Your task to perform on an android device: open a new tab in the chrome app Image 0: 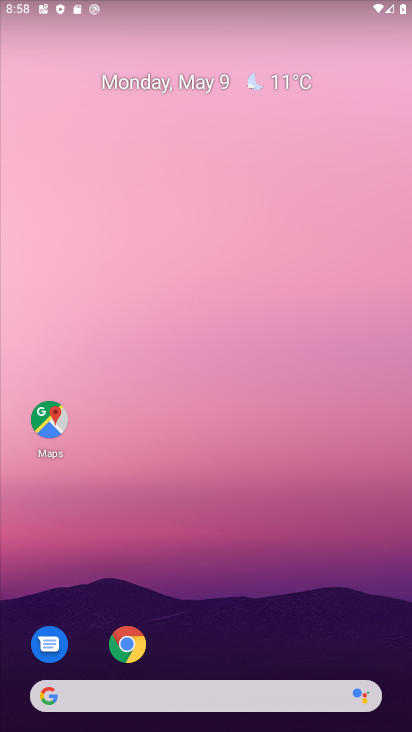
Step 0: click (129, 631)
Your task to perform on an android device: open a new tab in the chrome app Image 1: 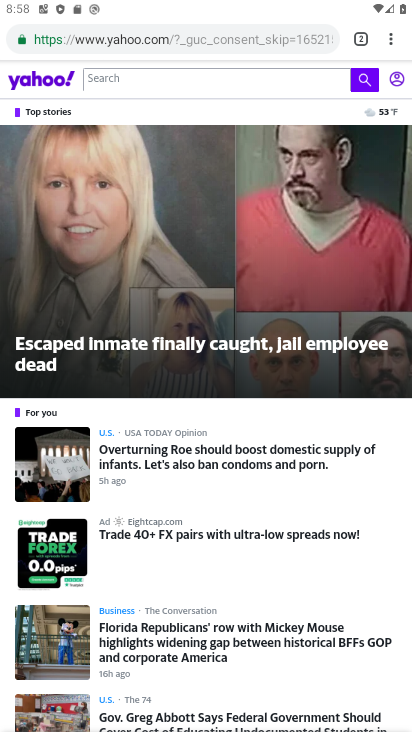
Step 1: click (354, 39)
Your task to perform on an android device: open a new tab in the chrome app Image 2: 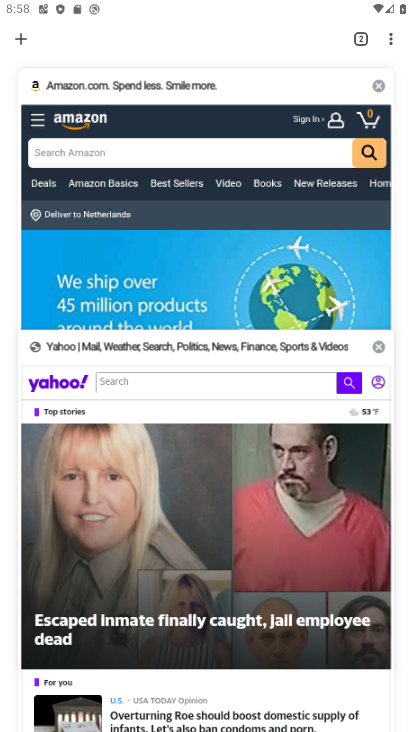
Step 2: click (27, 41)
Your task to perform on an android device: open a new tab in the chrome app Image 3: 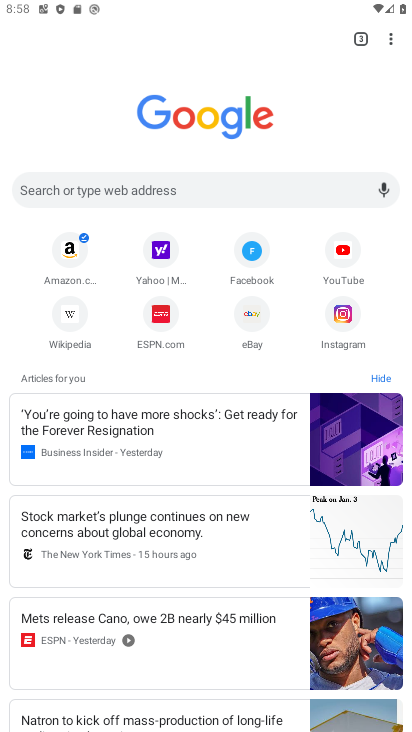
Step 3: task complete